Your task to perform on an android device: allow cookies in the chrome app Image 0: 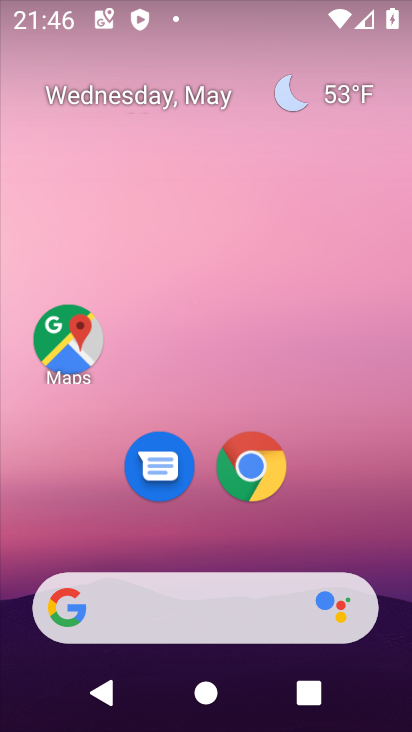
Step 0: drag from (202, 538) to (272, 213)
Your task to perform on an android device: allow cookies in the chrome app Image 1: 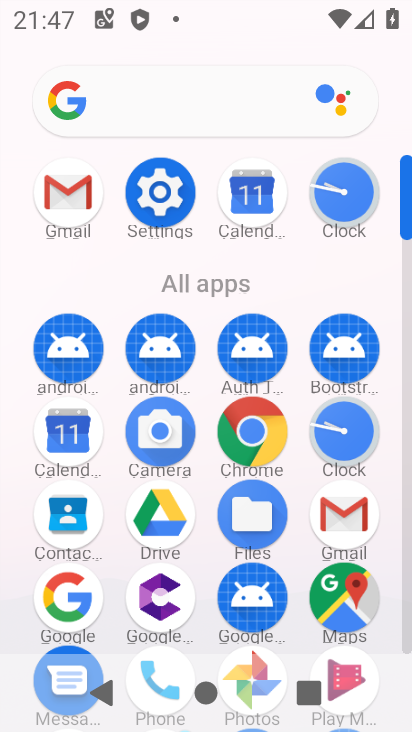
Step 1: click (244, 443)
Your task to perform on an android device: allow cookies in the chrome app Image 2: 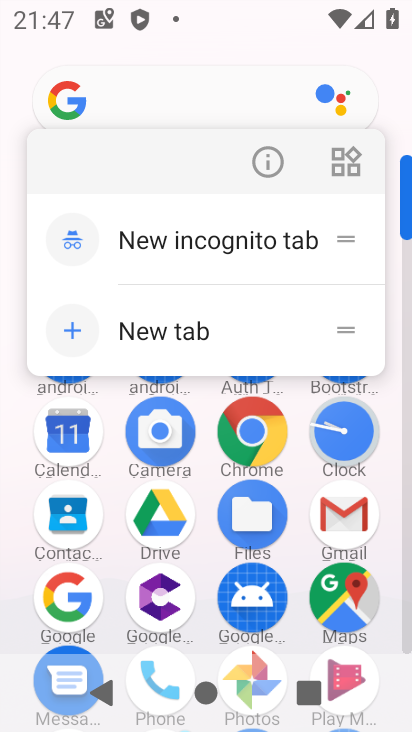
Step 2: click (290, 183)
Your task to perform on an android device: allow cookies in the chrome app Image 3: 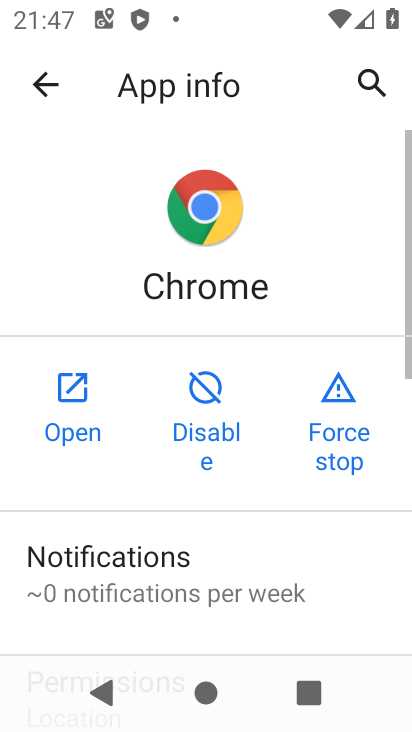
Step 3: click (75, 424)
Your task to perform on an android device: allow cookies in the chrome app Image 4: 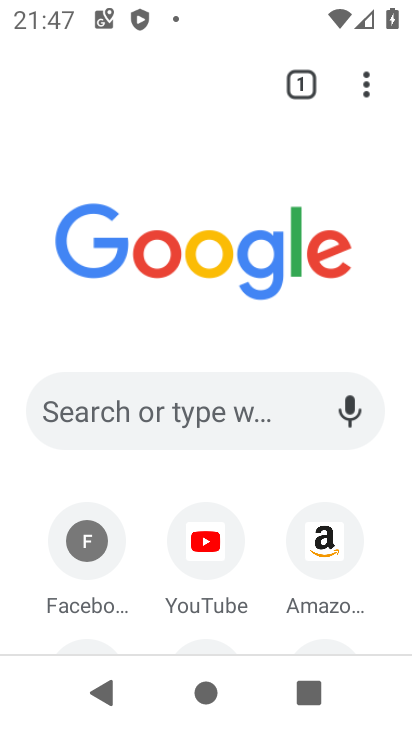
Step 4: drag from (354, 83) to (159, 505)
Your task to perform on an android device: allow cookies in the chrome app Image 5: 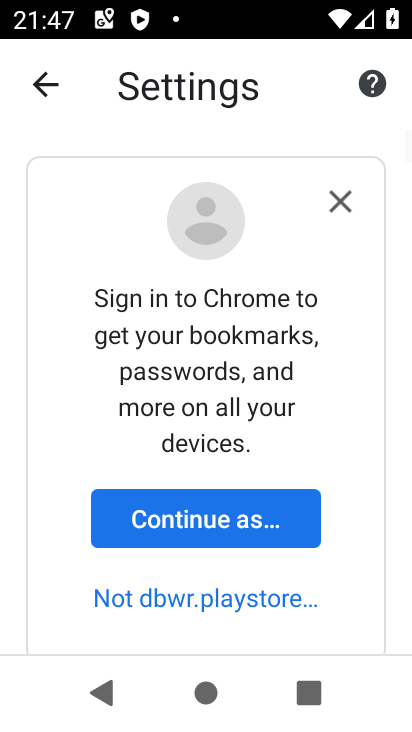
Step 5: drag from (218, 554) to (238, 342)
Your task to perform on an android device: allow cookies in the chrome app Image 6: 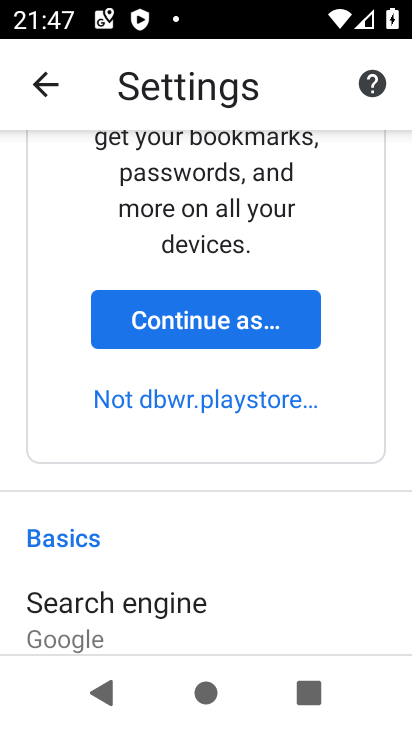
Step 6: drag from (180, 593) to (259, 144)
Your task to perform on an android device: allow cookies in the chrome app Image 7: 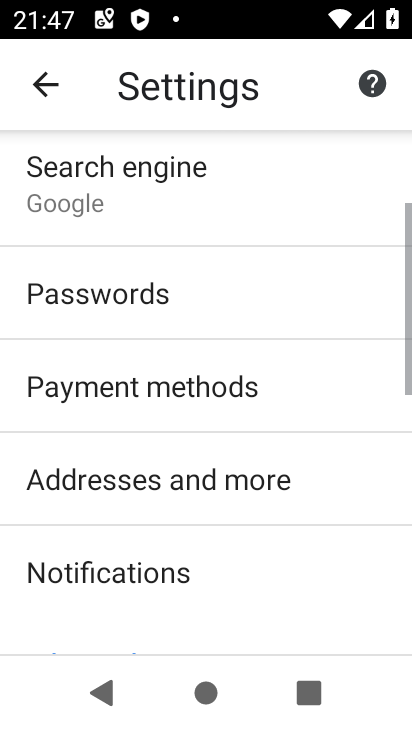
Step 7: drag from (179, 484) to (246, 109)
Your task to perform on an android device: allow cookies in the chrome app Image 8: 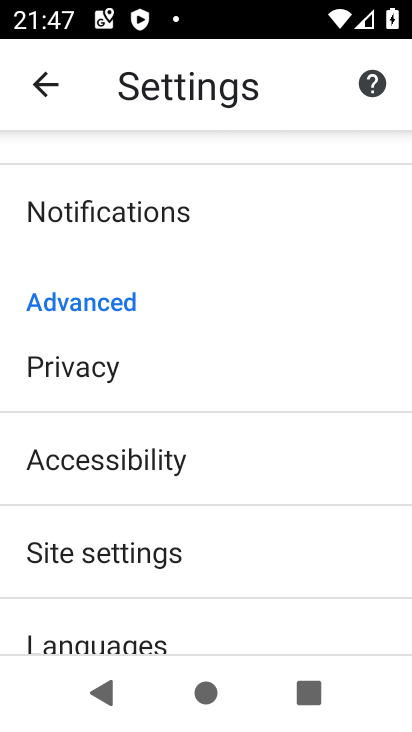
Step 8: click (156, 547)
Your task to perform on an android device: allow cookies in the chrome app Image 9: 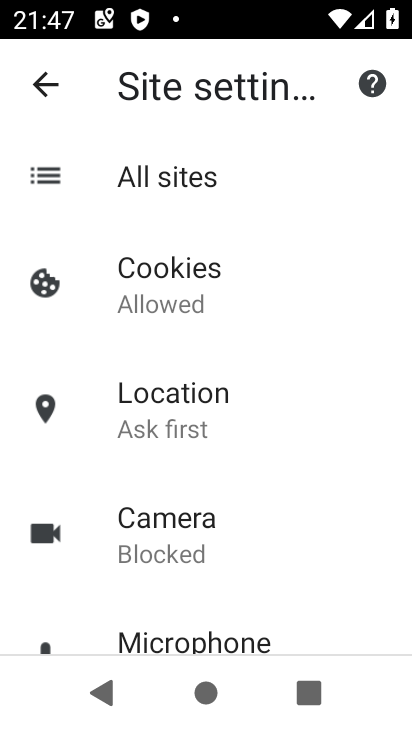
Step 9: click (206, 292)
Your task to perform on an android device: allow cookies in the chrome app Image 10: 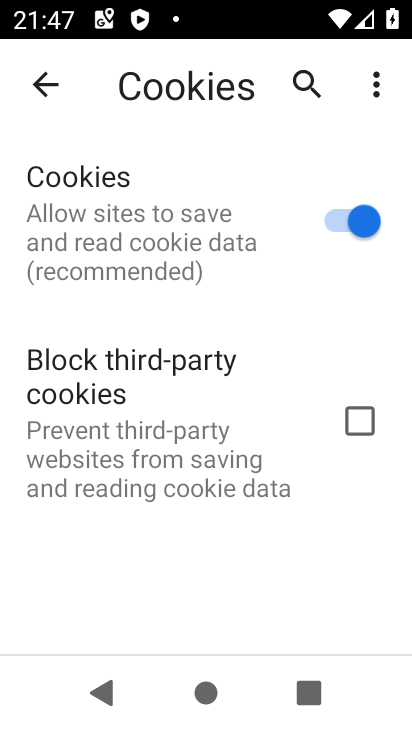
Step 10: task complete